Your task to perform on an android device: turn off wifi Image 0: 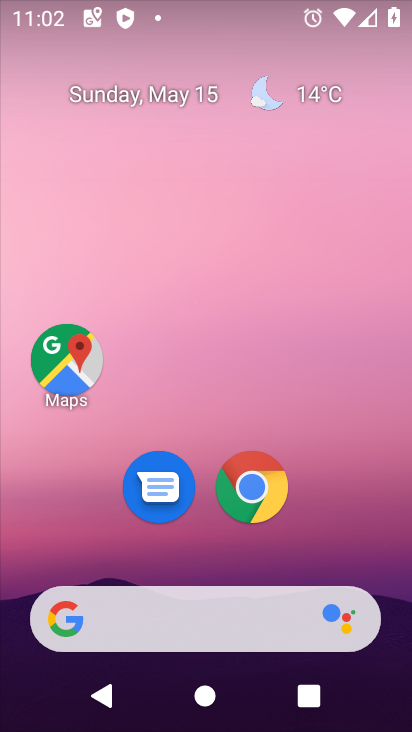
Step 0: drag from (400, 616) to (317, 107)
Your task to perform on an android device: turn off wifi Image 1: 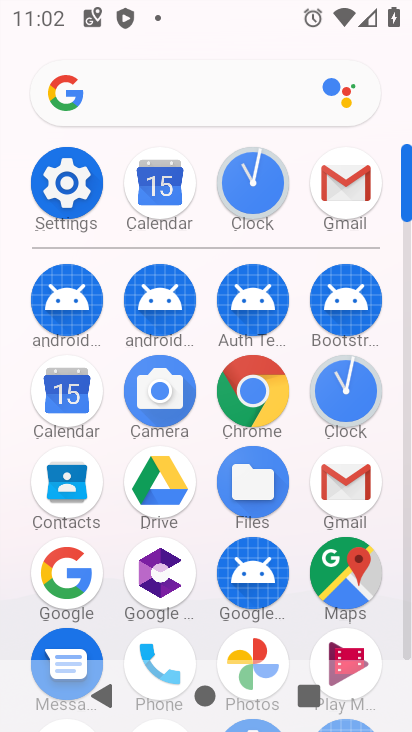
Step 1: click (408, 639)
Your task to perform on an android device: turn off wifi Image 2: 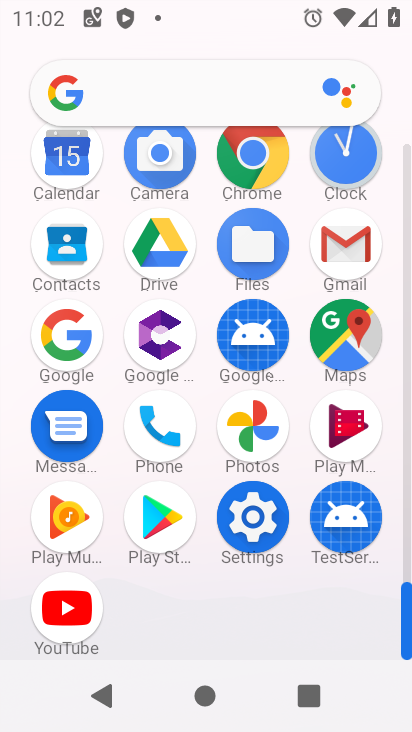
Step 2: click (254, 515)
Your task to perform on an android device: turn off wifi Image 3: 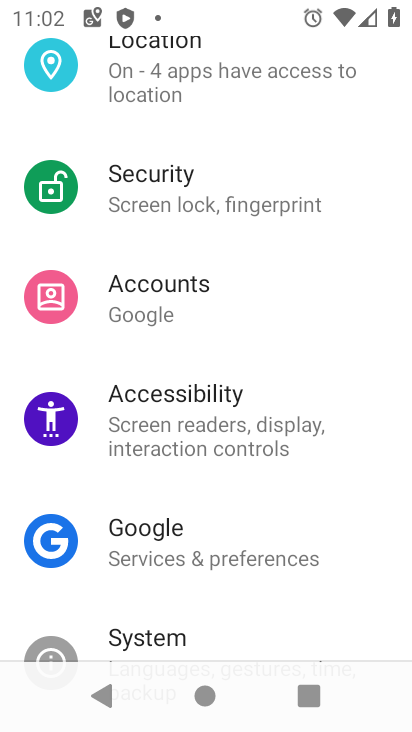
Step 3: drag from (360, 153) to (348, 562)
Your task to perform on an android device: turn off wifi Image 4: 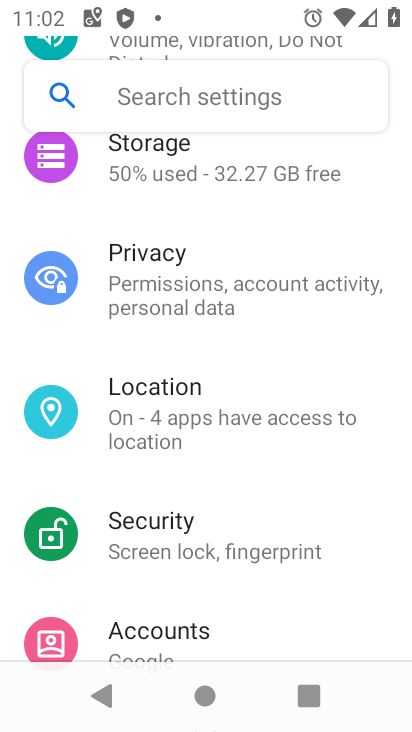
Step 4: drag from (366, 271) to (345, 539)
Your task to perform on an android device: turn off wifi Image 5: 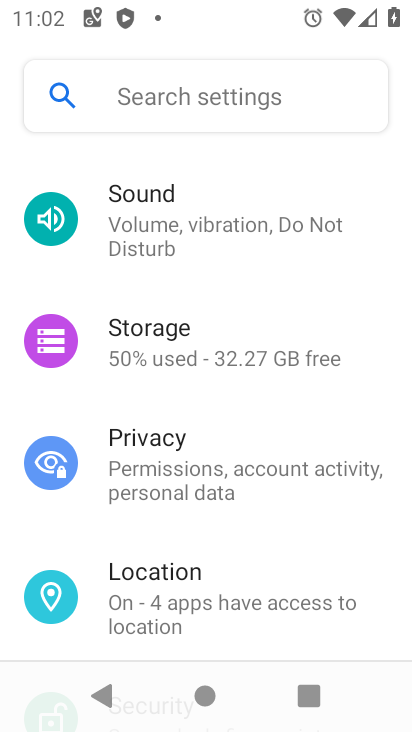
Step 5: drag from (356, 258) to (380, 491)
Your task to perform on an android device: turn off wifi Image 6: 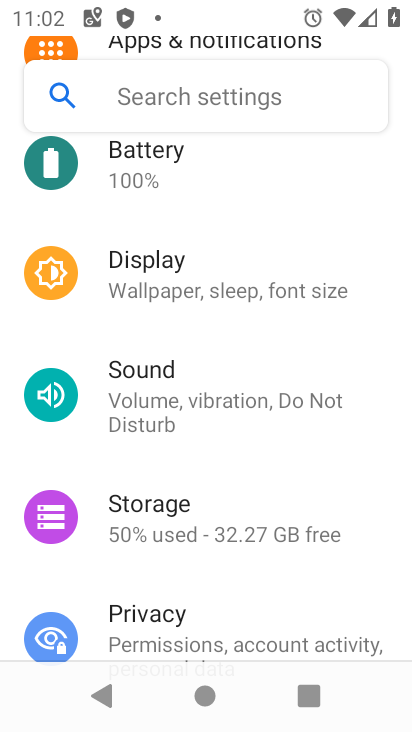
Step 6: drag from (365, 250) to (354, 488)
Your task to perform on an android device: turn off wifi Image 7: 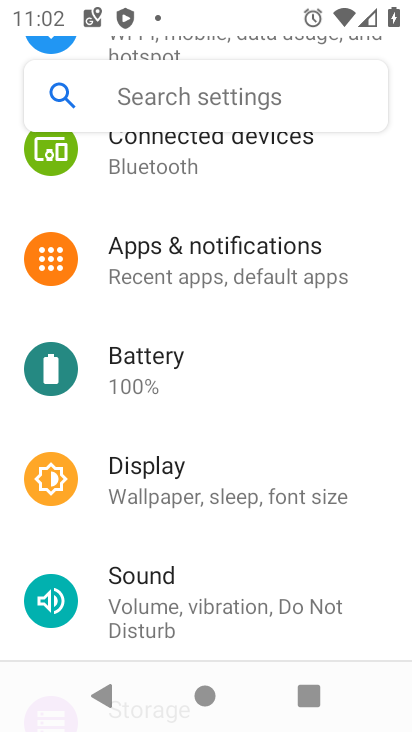
Step 7: drag from (343, 206) to (328, 454)
Your task to perform on an android device: turn off wifi Image 8: 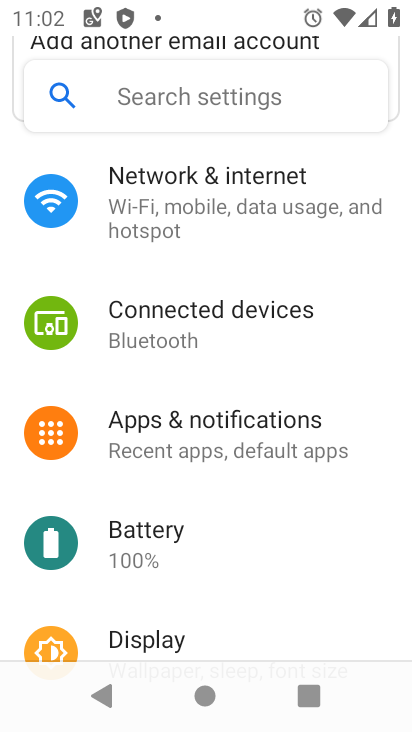
Step 8: drag from (373, 371) to (355, 572)
Your task to perform on an android device: turn off wifi Image 9: 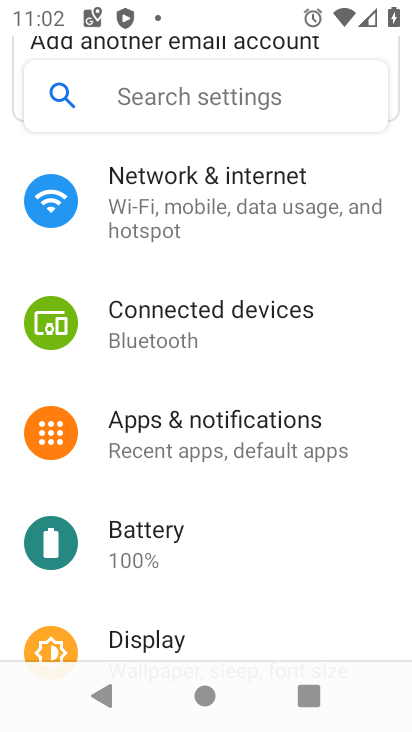
Step 9: click (157, 202)
Your task to perform on an android device: turn off wifi Image 10: 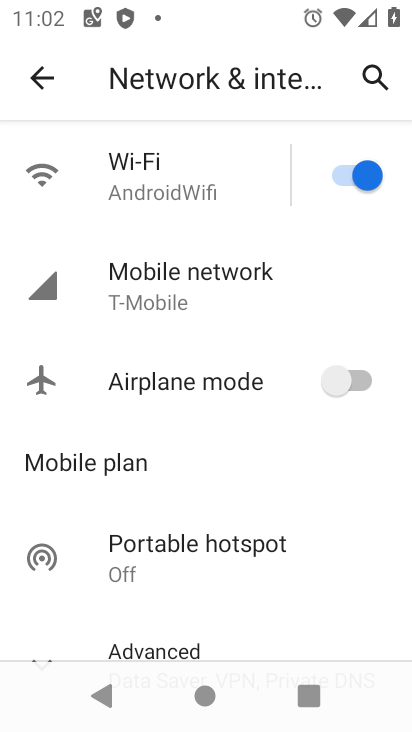
Step 10: click (335, 172)
Your task to perform on an android device: turn off wifi Image 11: 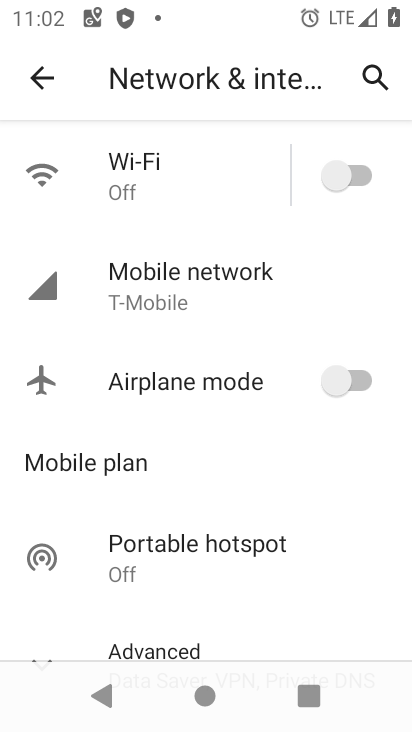
Step 11: task complete